Your task to perform on an android device: check android version Image 0: 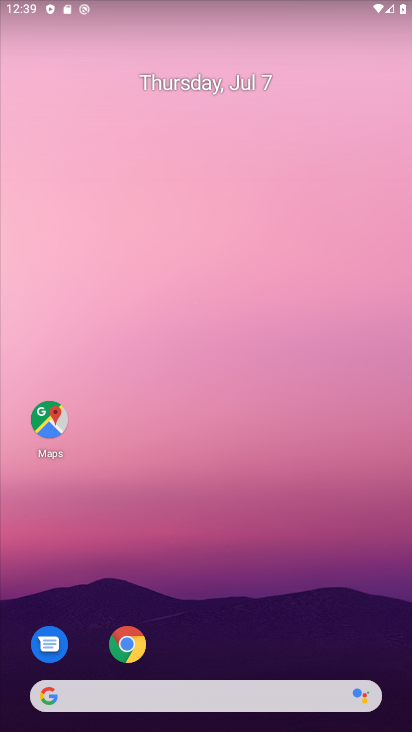
Step 0: drag from (261, 626) to (105, 165)
Your task to perform on an android device: check android version Image 1: 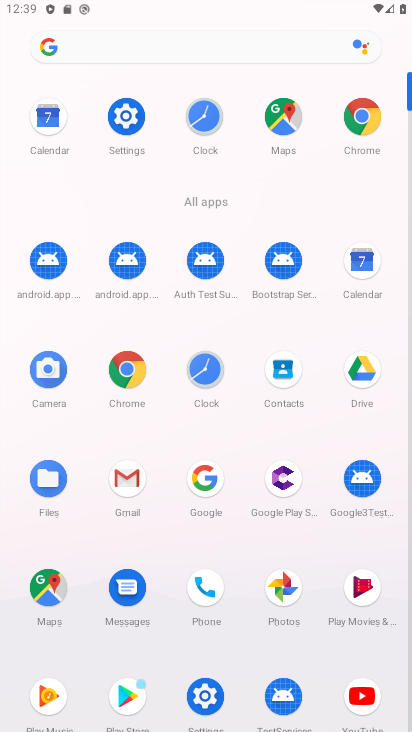
Step 1: click (114, 102)
Your task to perform on an android device: check android version Image 2: 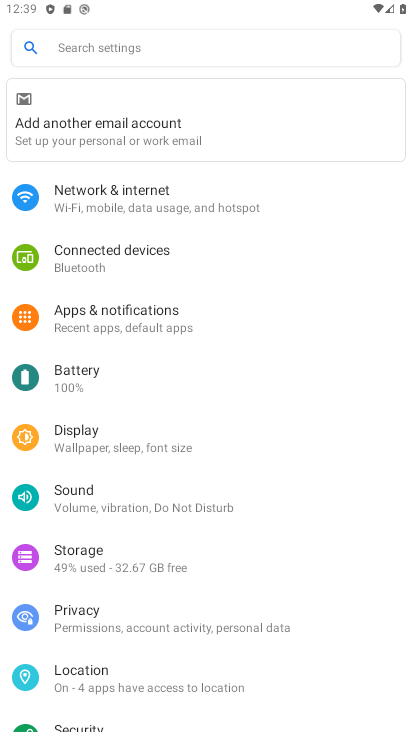
Step 2: drag from (189, 674) to (112, 51)
Your task to perform on an android device: check android version Image 3: 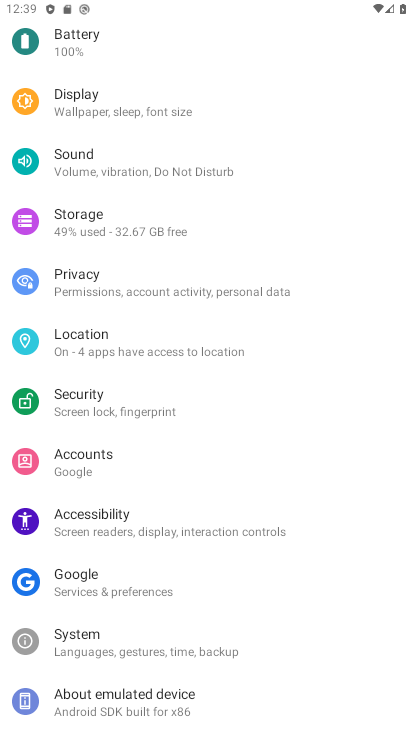
Step 3: drag from (222, 676) to (208, 279)
Your task to perform on an android device: check android version Image 4: 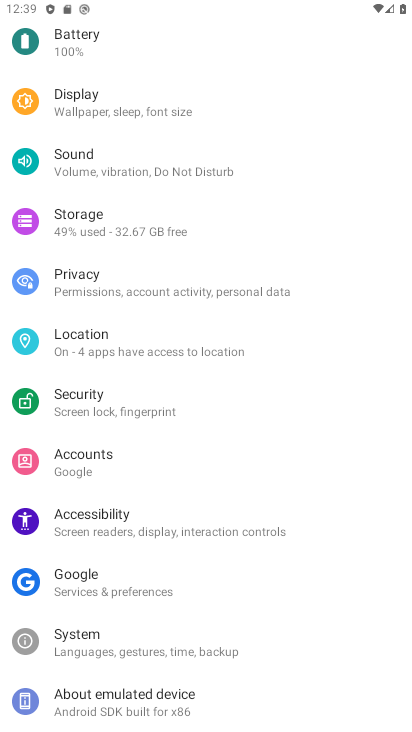
Step 4: click (211, 705)
Your task to perform on an android device: check android version Image 5: 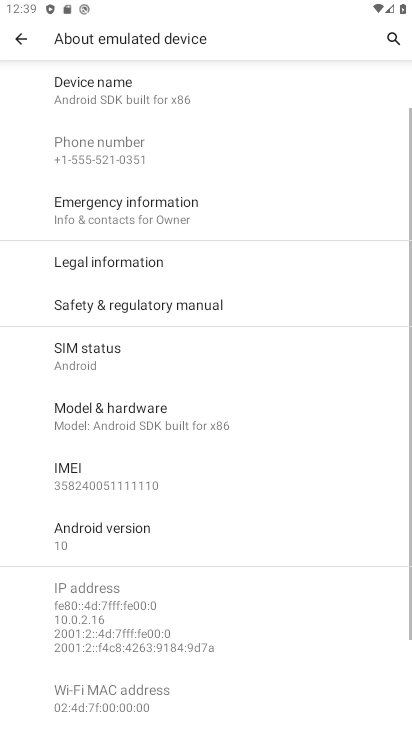
Step 5: click (201, 550)
Your task to perform on an android device: check android version Image 6: 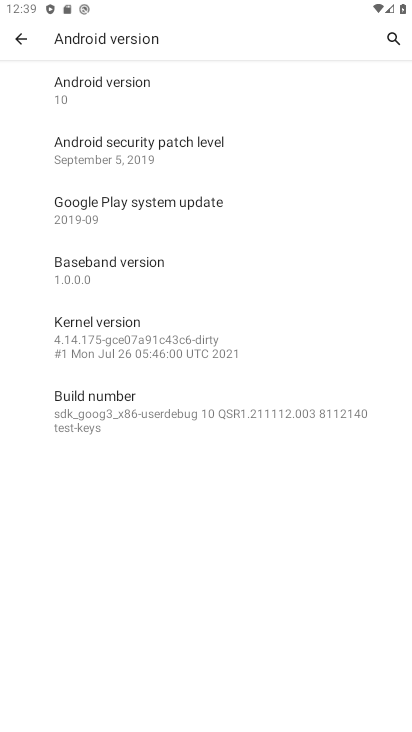
Step 6: click (239, 105)
Your task to perform on an android device: check android version Image 7: 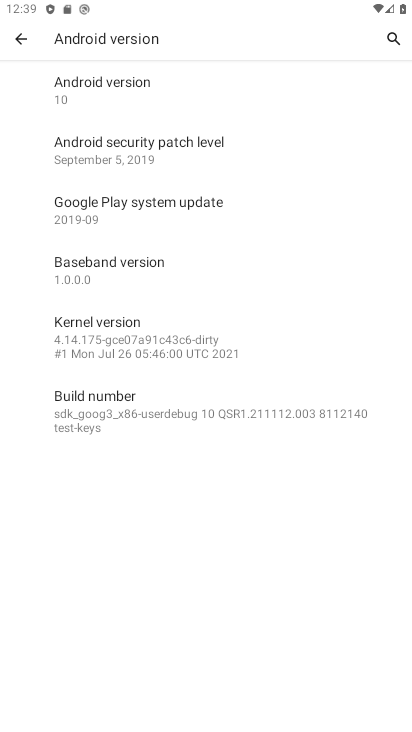
Step 7: task complete